Your task to perform on an android device: set an alarm Image 0: 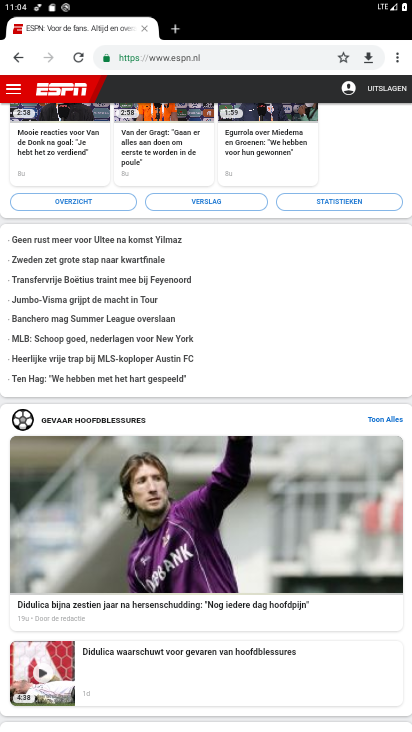
Step 0: press home button
Your task to perform on an android device: set an alarm Image 1: 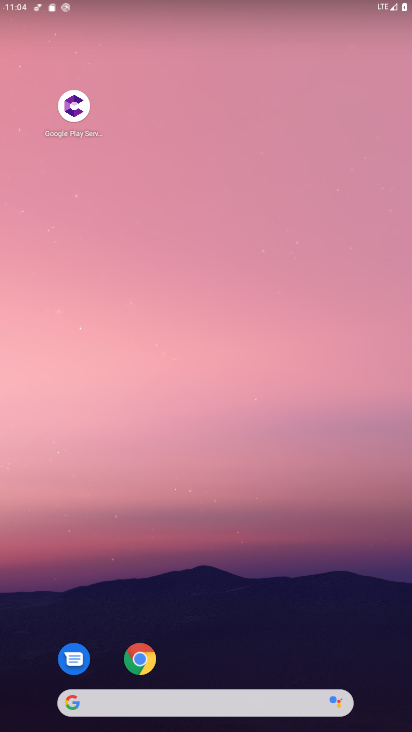
Step 1: drag from (208, 674) to (225, 4)
Your task to perform on an android device: set an alarm Image 2: 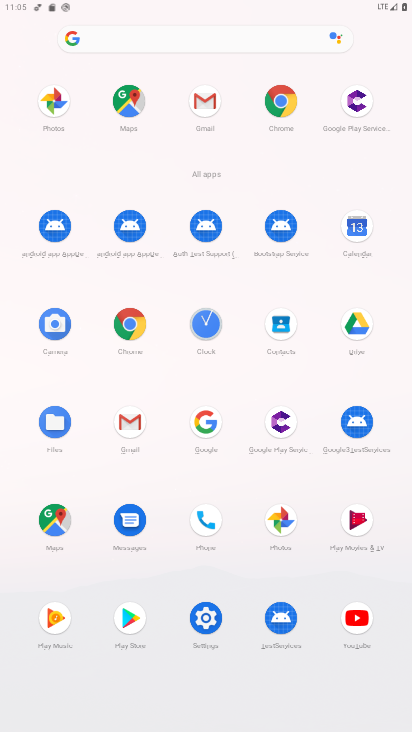
Step 2: click (207, 317)
Your task to perform on an android device: set an alarm Image 3: 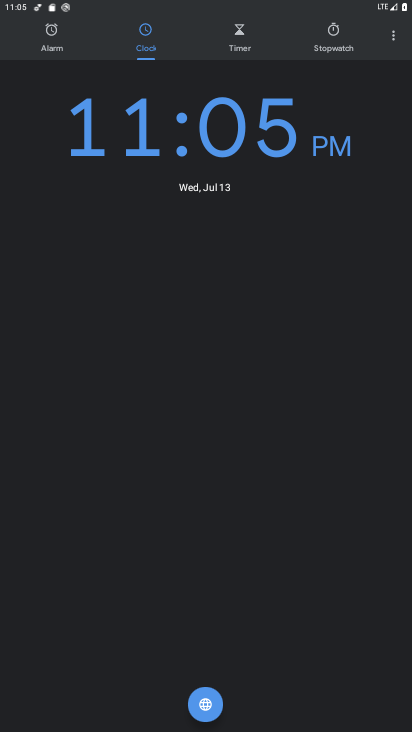
Step 3: click (55, 39)
Your task to perform on an android device: set an alarm Image 4: 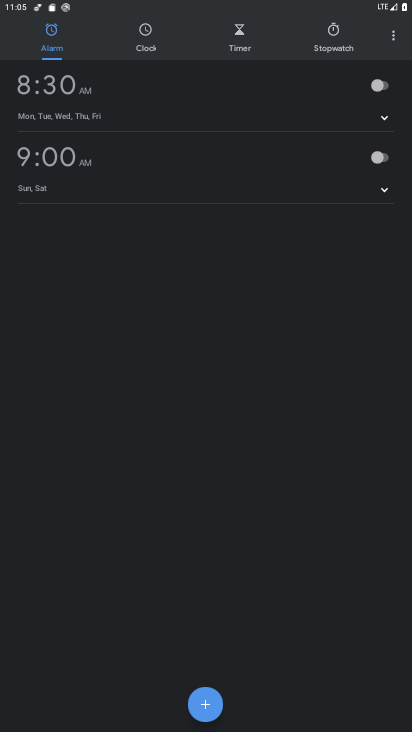
Step 4: click (383, 86)
Your task to perform on an android device: set an alarm Image 5: 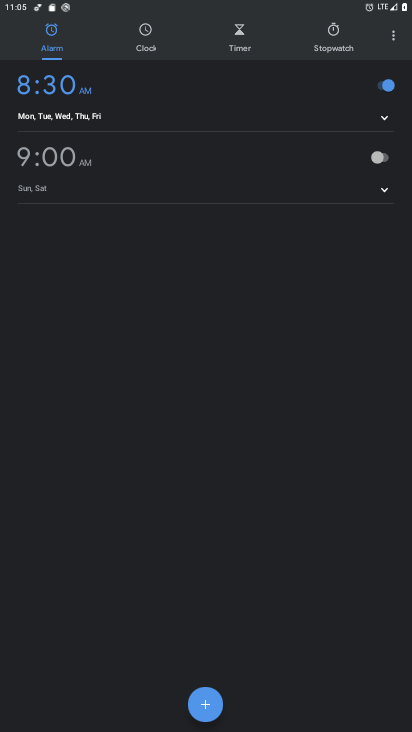
Step 5: click (376, 154)
Your task to perform on an android device: set an alarm Image 6: 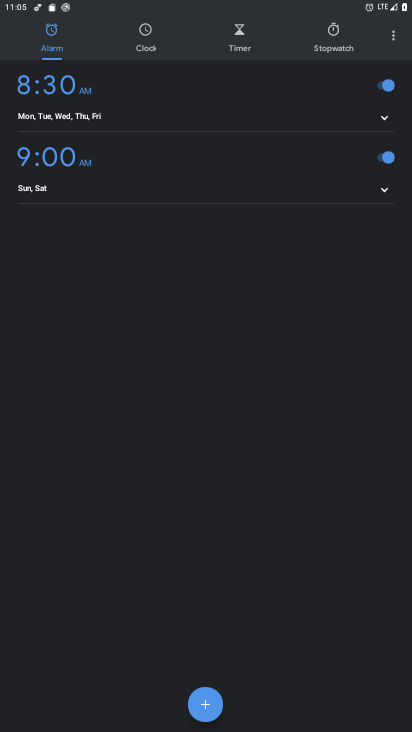
Step 6: task complete